Your task to perform on an android device: refresh tabs in the chrome app Image 0: 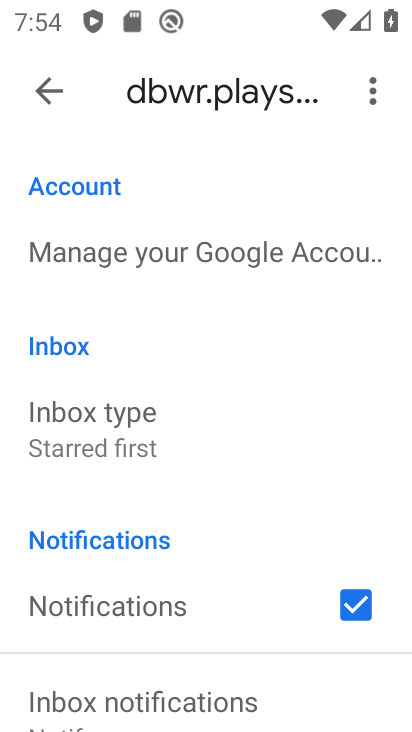
Step 0: press home button
Your task to perform on an android device: refresh tabs in the chrome app Image 1: 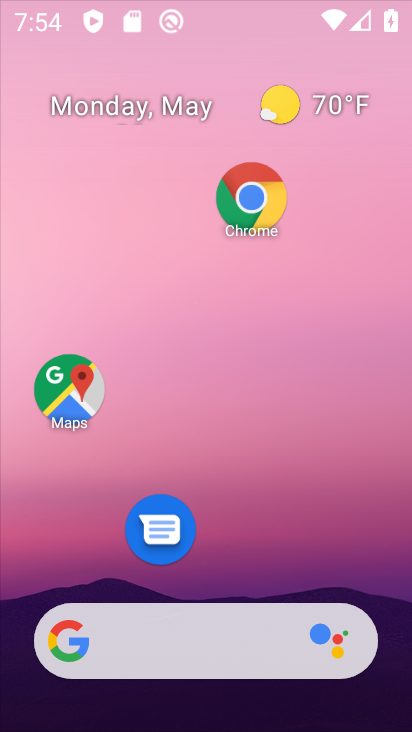
Step 1: press home button
Your task to perform on an android device: refresh tabs in the chrome app Image 2: 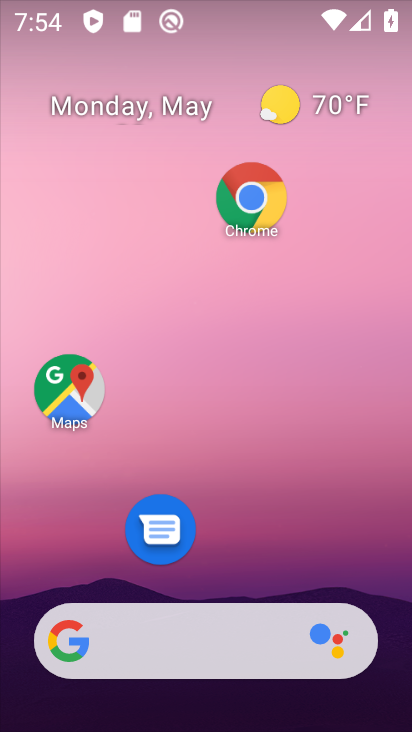
Step 2: click (251, 189)
Your task to perform on an android device: refresh tabs in the chrome app Image 3: 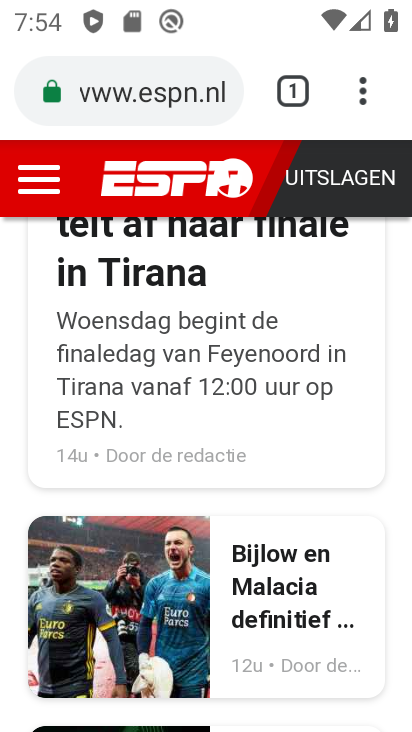
Step 3: click (368, 91)
Your task to perform on an android device: refresh tabs in the chrome app Image 4: 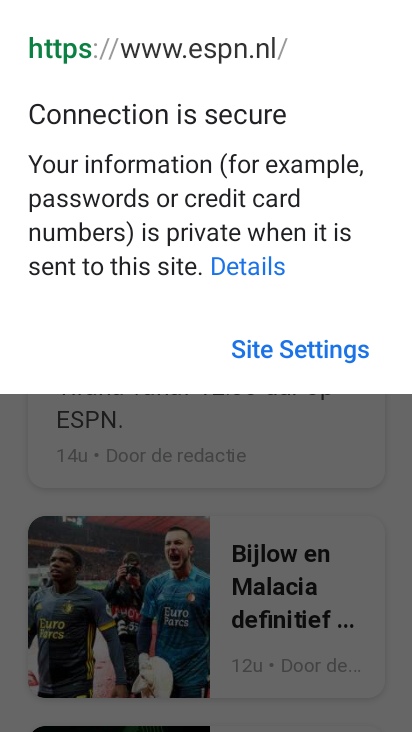
Step 4: click (263, 454)
Your task to perform on an android device: refresh tabs in the chrome app Image 5: 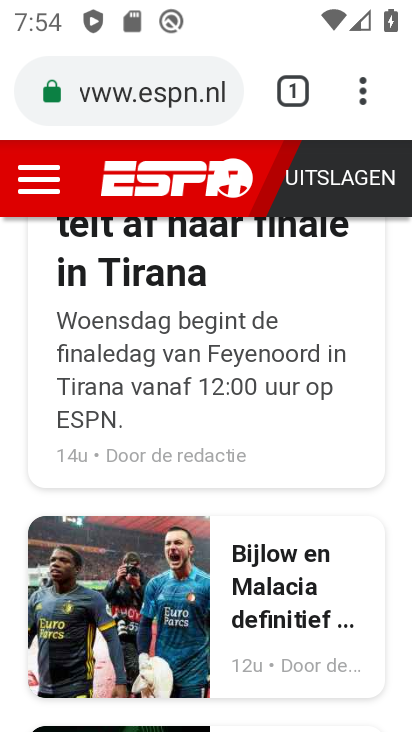
Step 5: click (364, 88)
Your task to perform on an android device: refresh tabs in the chrome app Image 6: 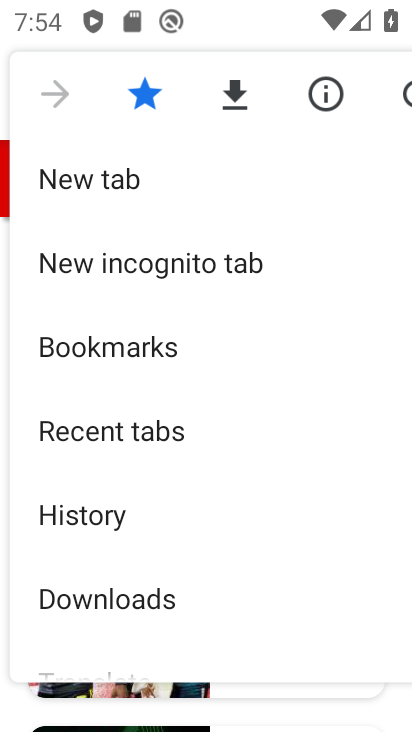
Step 6: click (406, 88)
Your task to perform on an android device: refresh tabs in the chrome app Image 7: 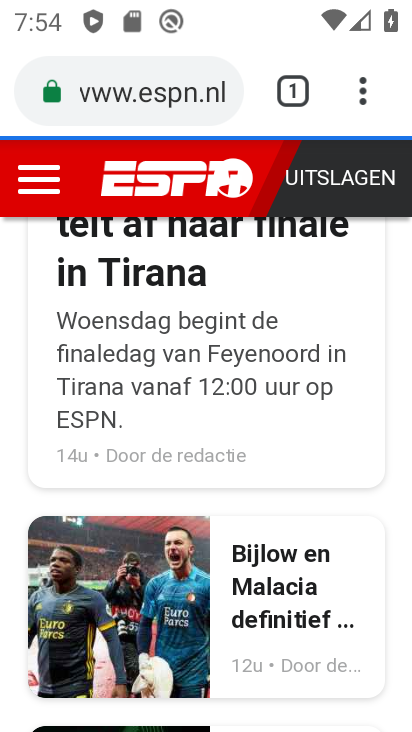
Step 7: task complete